Your task to perform on an android device: When is my next meeting? Image 0: 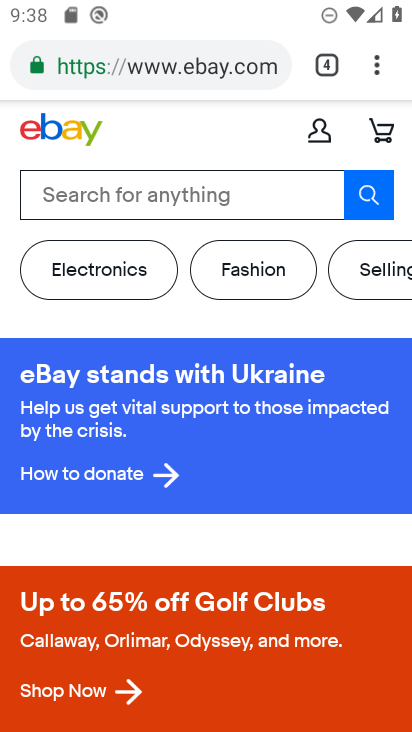
Step 0: press home button
Your task to perform on an android device: When is my next meeting? Image 1: 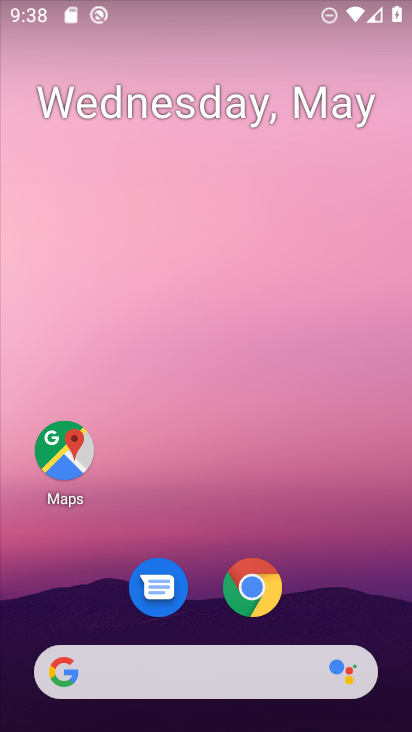
Step 1: drag from (200, 723) to (186, 93)
Your task to perform on an android device: When is my next meeting? Image 2: 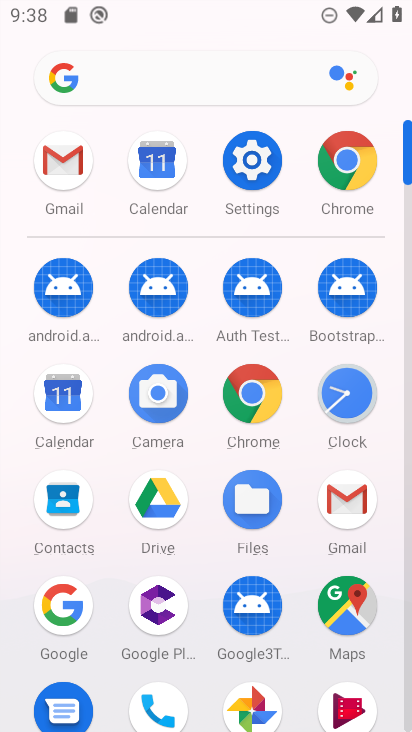
Step 2: click (64, 397)
Your task to perform on an android device: When is my next meeting? Image 3: 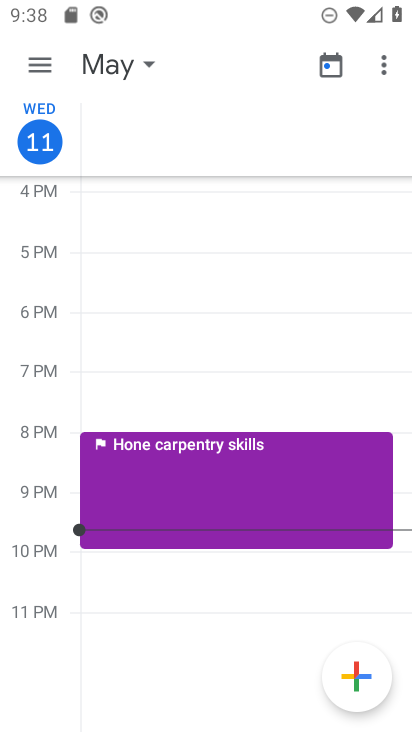
Step 3: click (108, 65)
Your task to perform on an android device: When is my next meeting? Image 4: 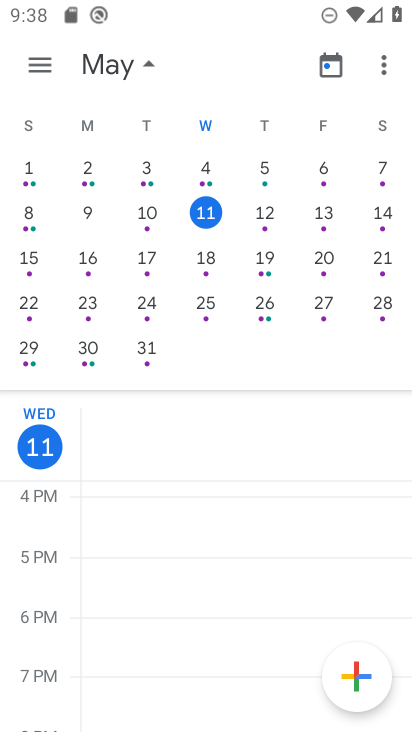
Step 4: click (266, 207)
Your task to perform on an android device: When is my next meeting? Image 5: 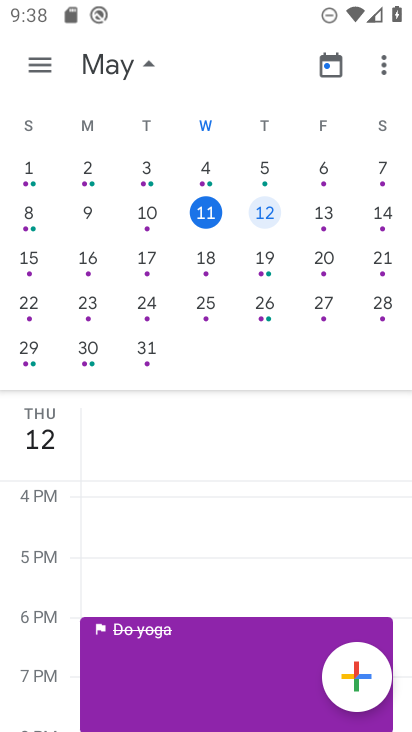
Step 5: task complete